Your task to perform on an android device: turn on data saver in the chrome app Image 0: 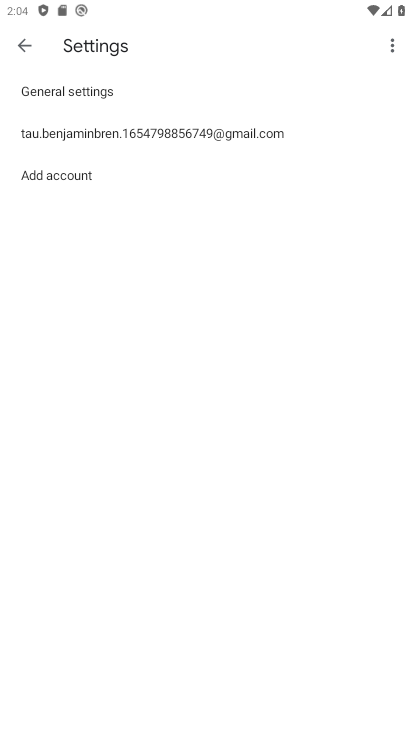
Step 0: click (88, 131)
Your task to perform on an android device: turn on data saver in the chrome app Image 1: 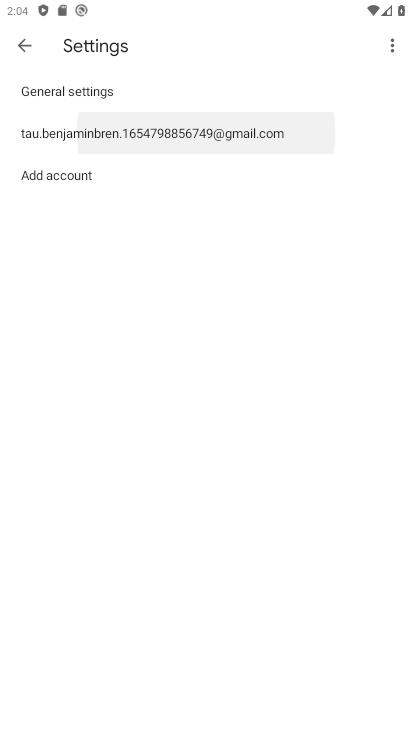
Step 1: click (89, 133)
Your task to perform on an android device: turn on data saver in the chrome app Image 2: 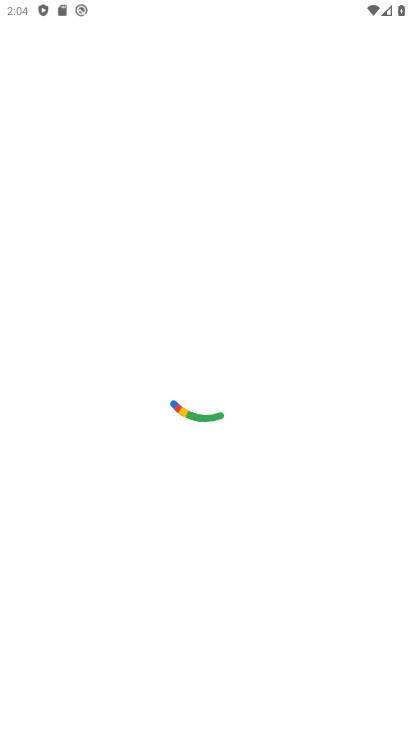
Step 2: press back button
Your task to perform on an android device: turn on data saver in the chrome app Image 3: 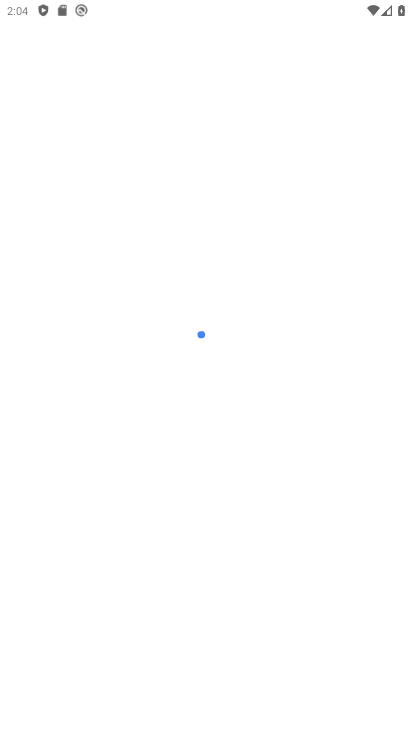
Step 3: press back button
Your task to perform on an android device: turn on data saver in the chrome app Image 4: 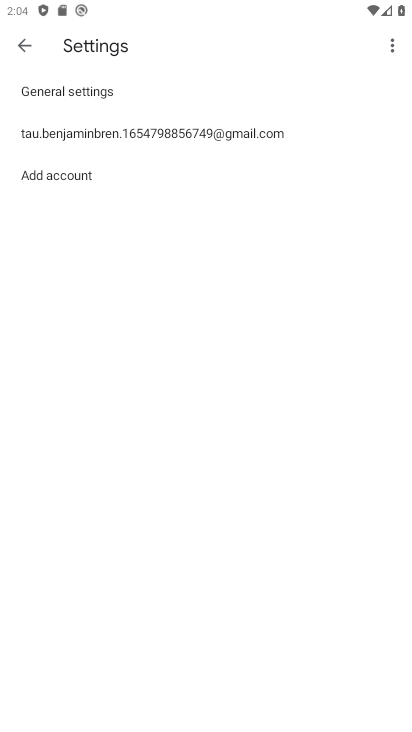
Step 4: click (16, 40)
Your task to perform on an android device: turn on data saver in the chrome app Image 5: 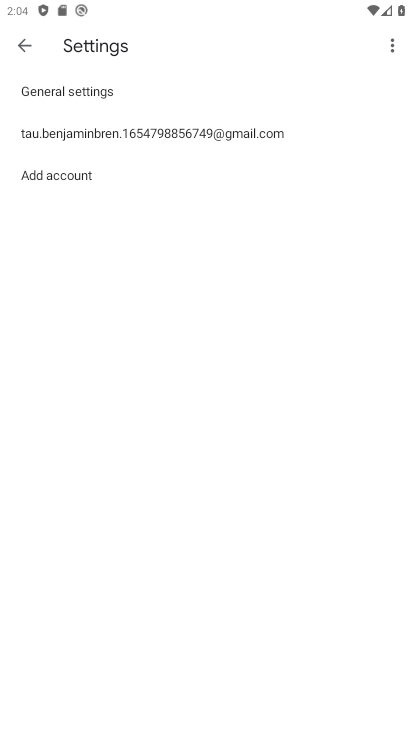
Step 5: click (15, 39)
Your task to perform on an android device: turn on data saver in the chrome app Image 6: 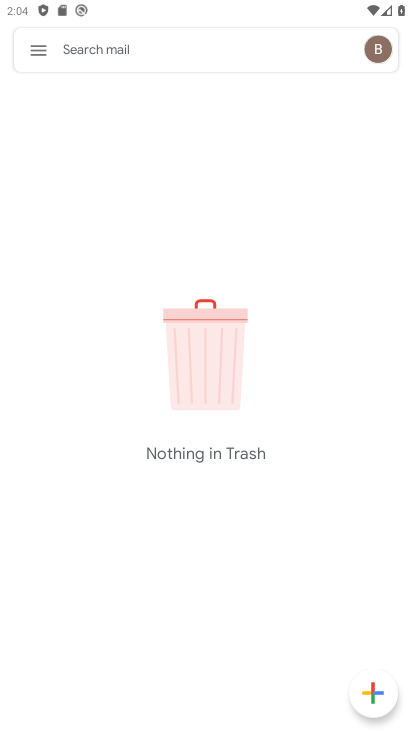
Step 6: click (36, 56)
Your task to perform on an android device: turn on data saver in the chrome app Image 7: 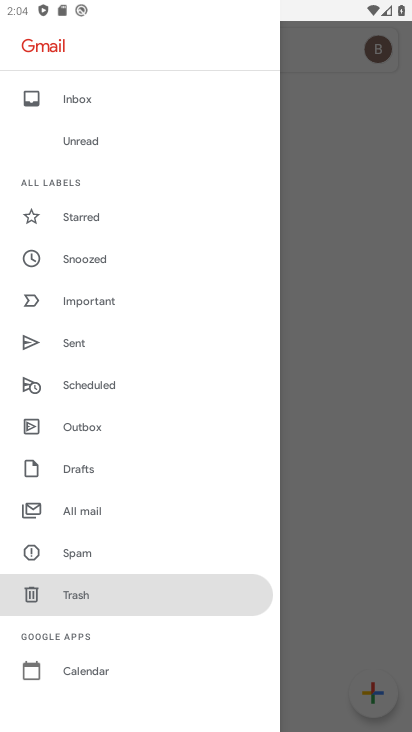
Step 7: click (281, 305)
Your task to perform on an android device: turn on data saver in the chrome app Image 8: 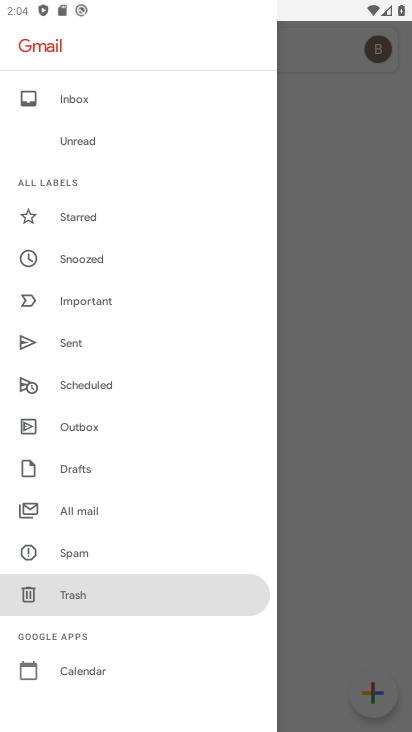
Step 8: click (292, 288)
Your task to perform on an android device: turn on data saver in the chrome app Image 9: 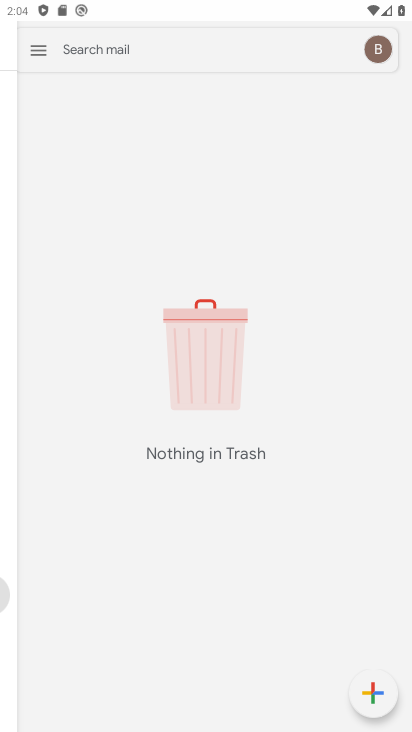
Step 9: click (295, 290)
Your task to perform on an android device: turn on data saver in the chrome app Image 10: 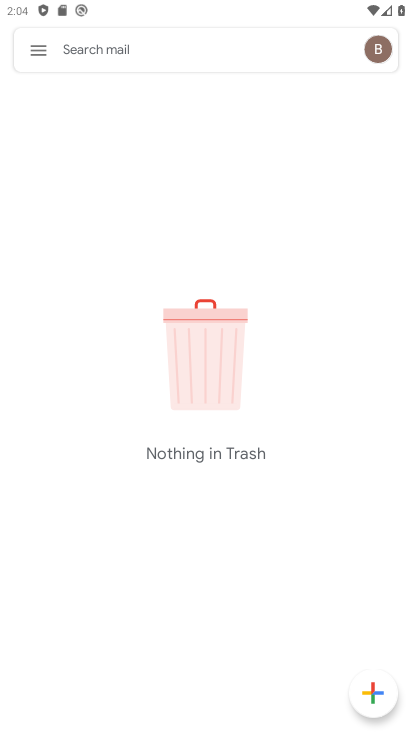
Step 10: press back button
Your task to perform on an android device: turn on data saver in the chrome app Image 11: 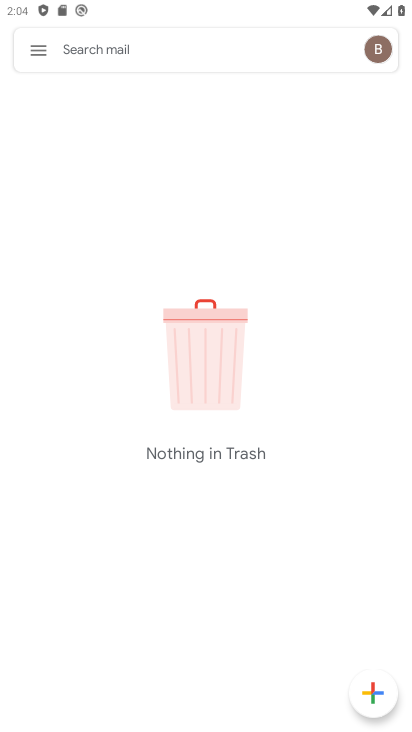
Step 11: press back button
Your task to perform on an android device: turn on data saver in the chrome app Image 12: 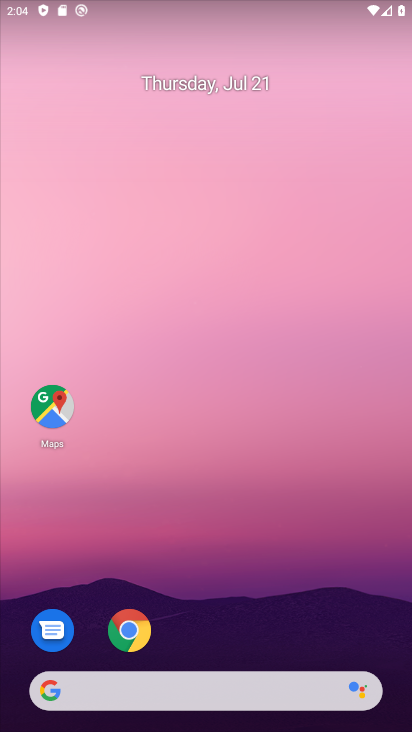
Step 12: drag from (218, 414) to (215, 43)
Your task to perform on an android device: turn on data saver in the chrome app Image 13: 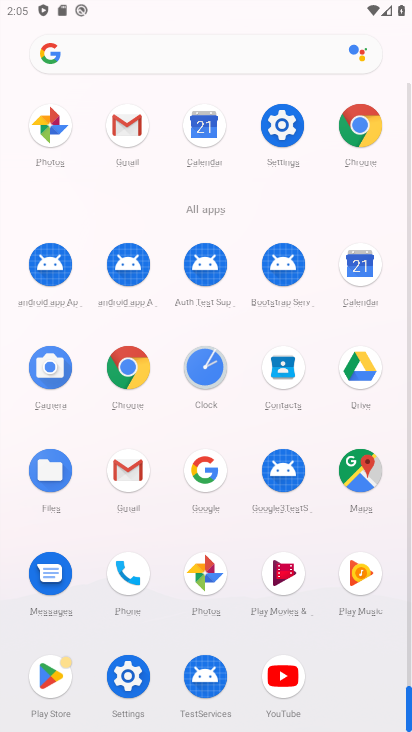
Step 13: click (364, 122)
Your task to perform on an android device: turn on data saver in the chrome app Image 14: 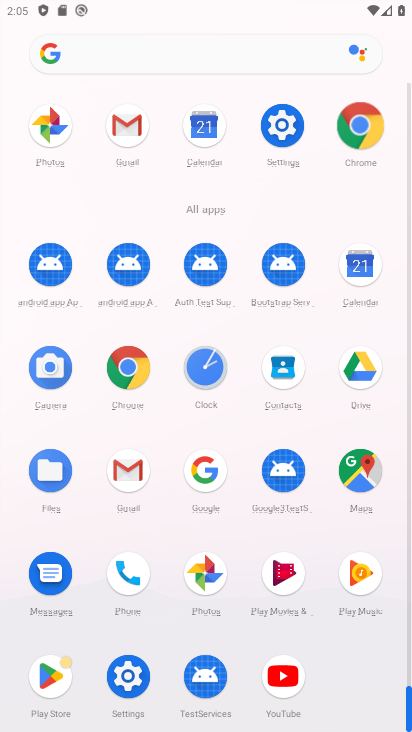
Step 14: click (365, 122)
Your task to perform on an android device: turn on data saver in the chrome app Image 15: 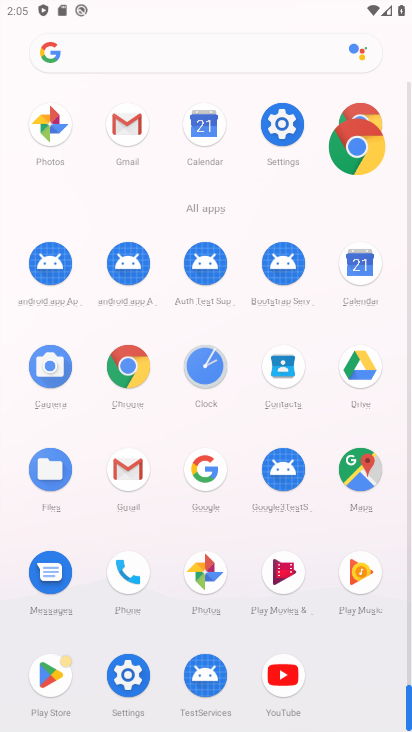
Step 15: click (365, 122)
Your task to perform on an android device: turn on data saver in the chrome app Image 16: 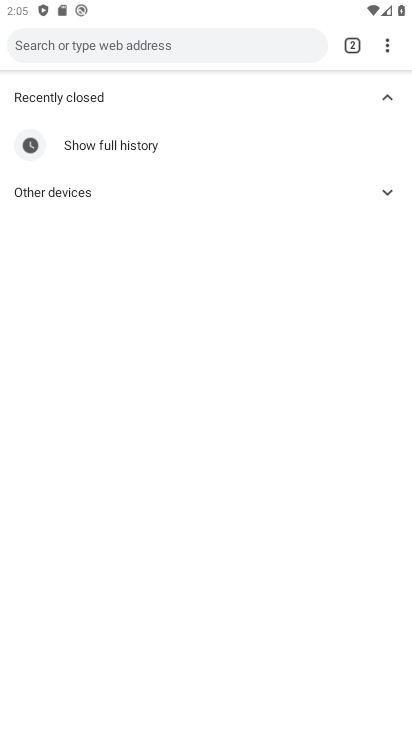
Step 16: drag from (386, 43) to (211, 380)
Your task to perform on an android device: turn on data saver in the chrome app Image 17: 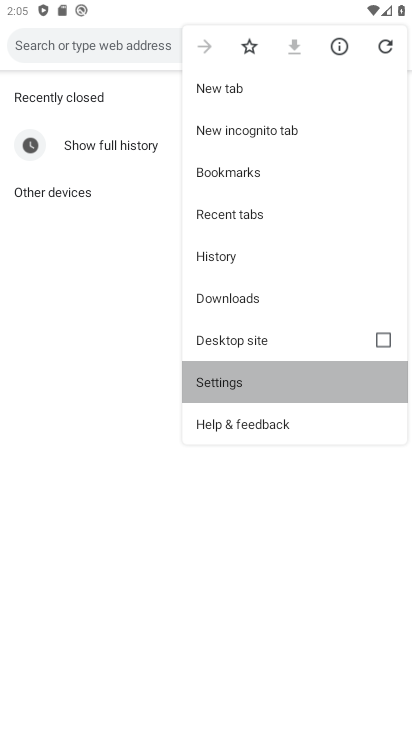
Step 17: click (211, 381)
Your task to perform on an android device: turn on data saver in the chrome app Image 18: 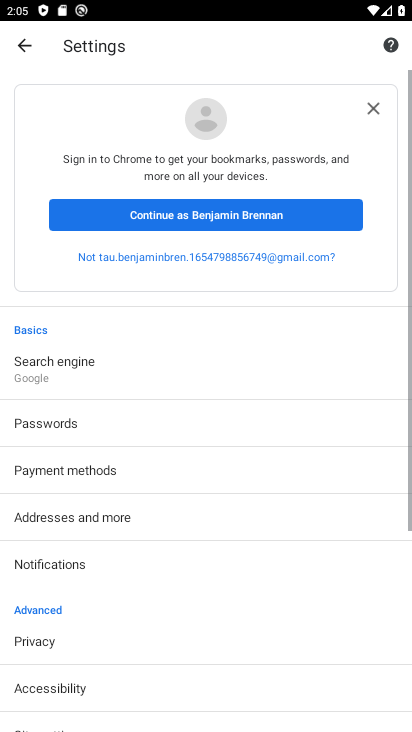
Step 18: drag from (83, 559) to (84, 263)
Your task to perform on an android device: turn on data saver in the chrome app Image 19: 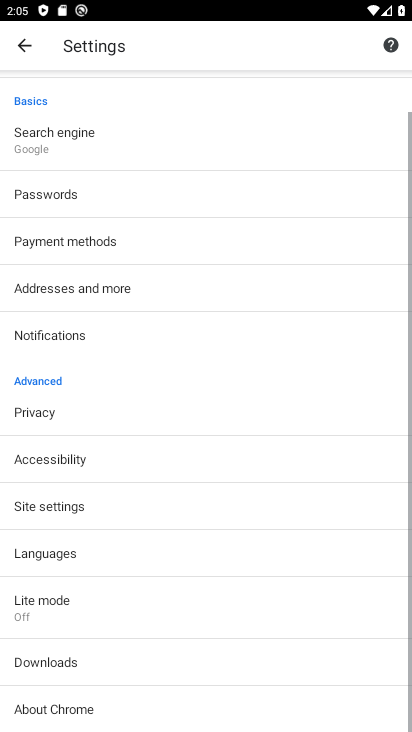
Step 19: drag from (104, 435) to (105, 161)
Your task to perform on an android device: turn on data saver in the chrome app Image 20: 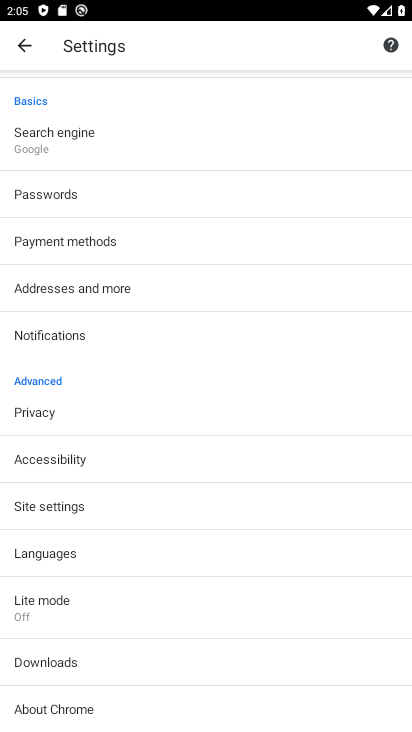
Step 20: click (47, 504)
Your task to perform on an android device: turn on data saver in the chrome app Image 21: 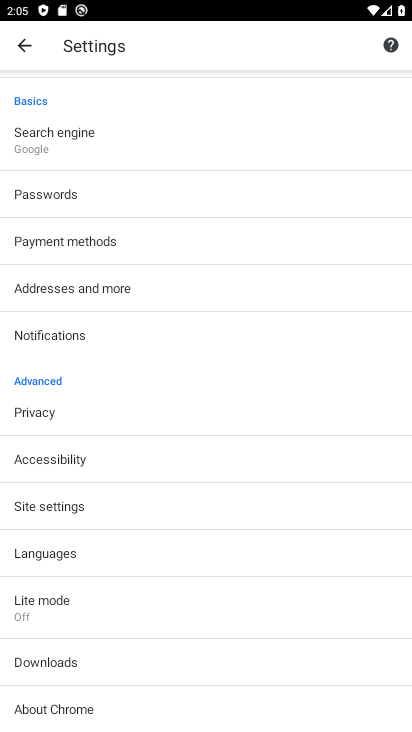
Step 21: click (47, 504)
Your task to perform on an android device: turn on data saver in the chrome app Image 22: 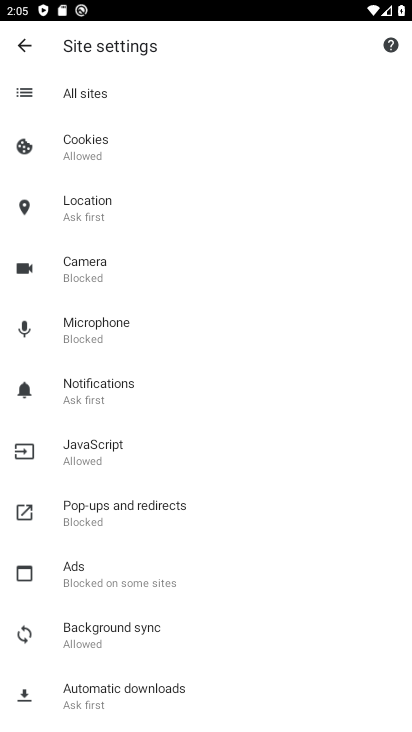
Step 22: click (22, 49)
Your task to perform on an android device: turn on data saver in the chrome app Image 23: 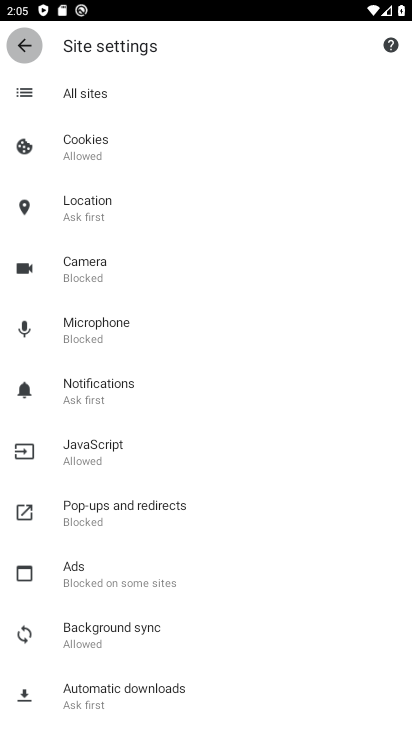
Step 23: click (22, 49)
Your task to perform on an android device: turn on data saver in the chrome app Image 24: 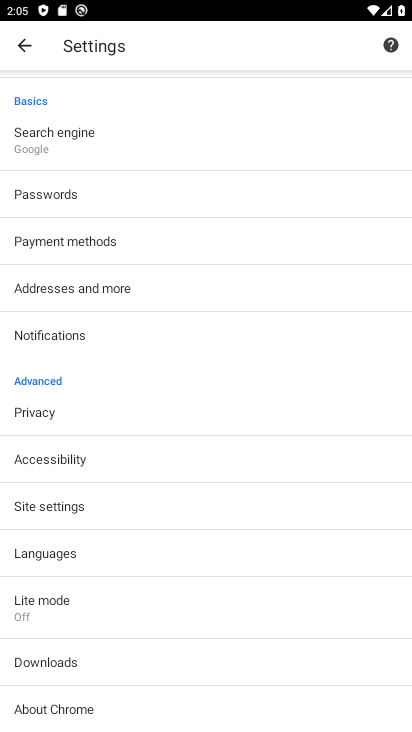
Step 24: click (30, 594)
Your task to perform on an android device: turn on data saver in the chrome app Image 25: 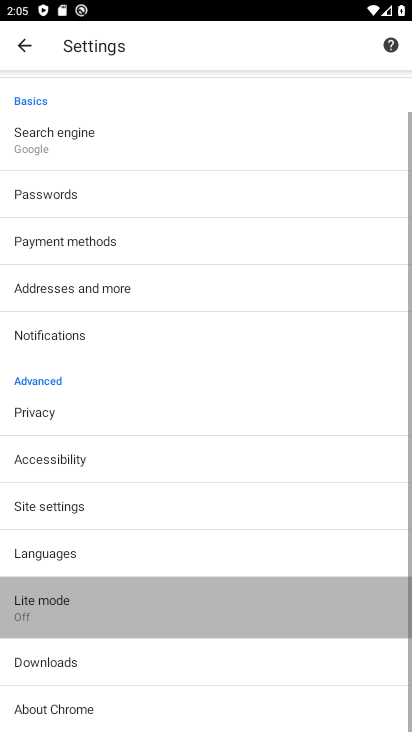
Step 25: click (30, 593)
Your task to perform on an android device: turn on data saver in the chrome app Image 26: 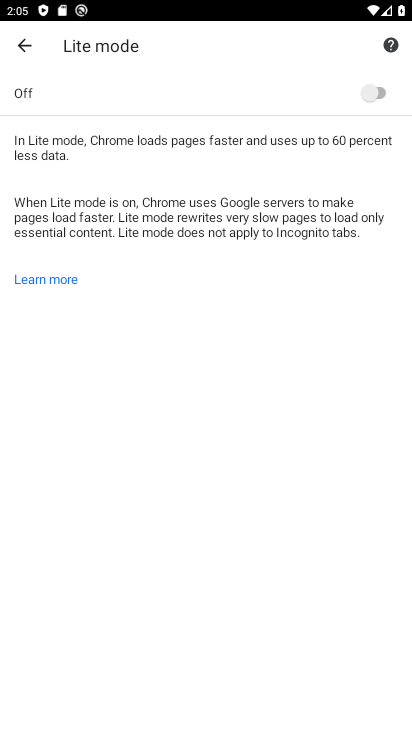
Step 26: click (366, 91)
Your task to perform on an android device: turn on data saver in the chrome app Image 27: 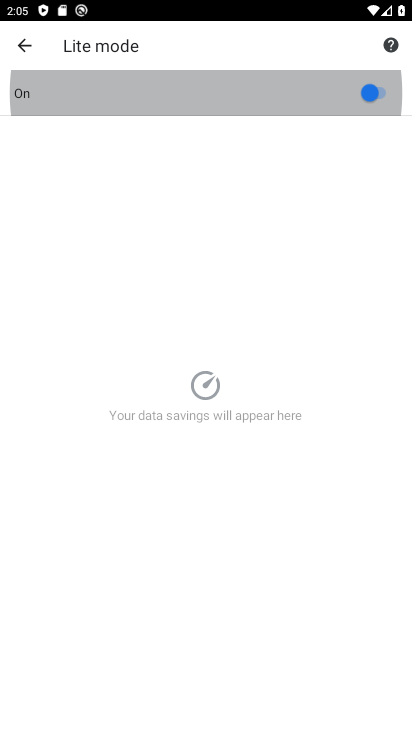
Step 27: click (367, 92)
Your task to perform on an android device: turn on data saver in the chrome app Image 28: 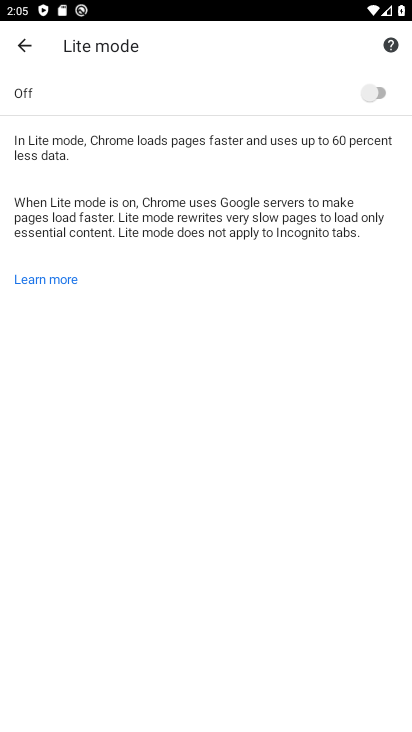
Step 28: click (375, 88)
Your task to perform on an android device: turn on data saver in the chrome app Image 29: 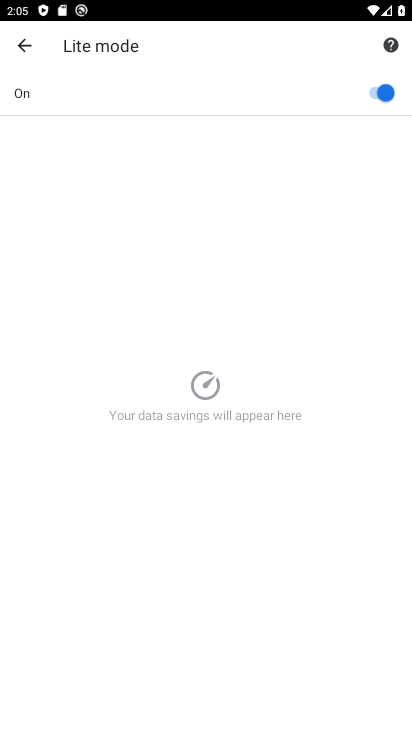
Step 29: task complete